Your task to perform on an android device: check battery use Image 0: 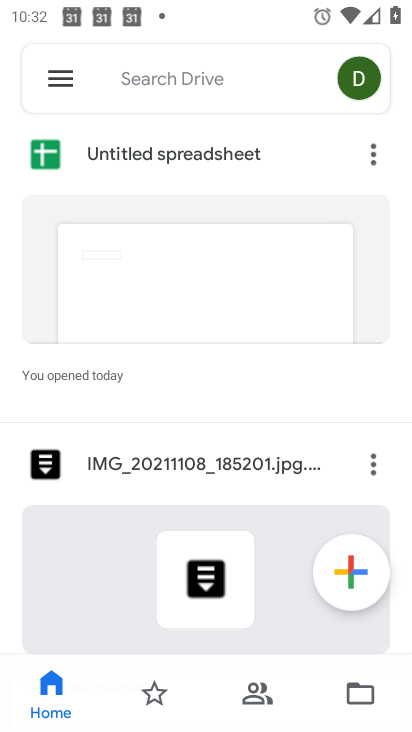
Step 0: press home button
Your task to perform on an android device: check battery use Image 1: 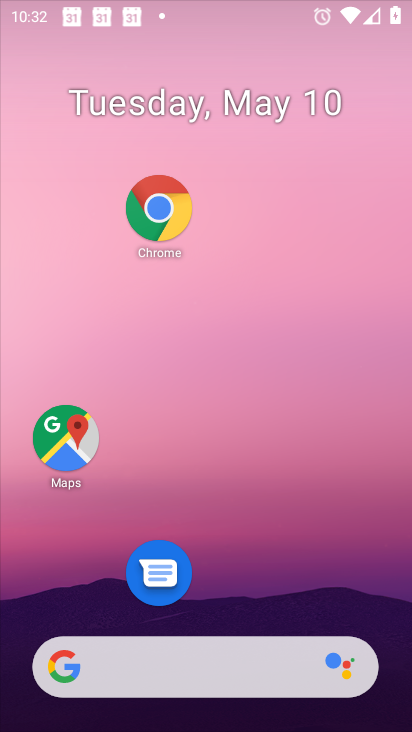
Step 1: drag from (265, 678) to (307, 178)
Your task to perform on an android device: check battery use Image 2: 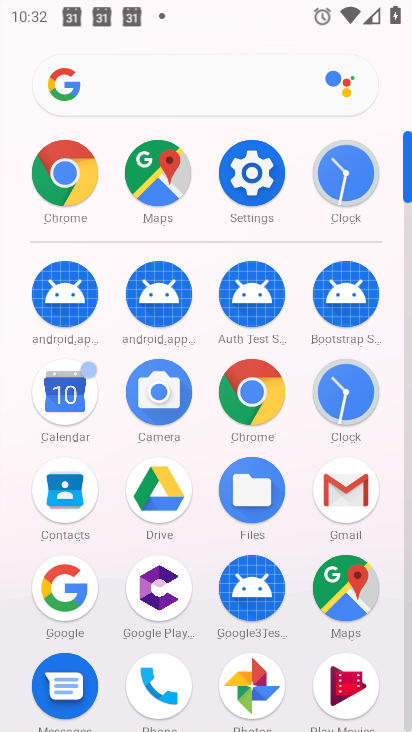
Step 2: click (241, 165)
Your task to perform on an android device: check battery use Image 3: 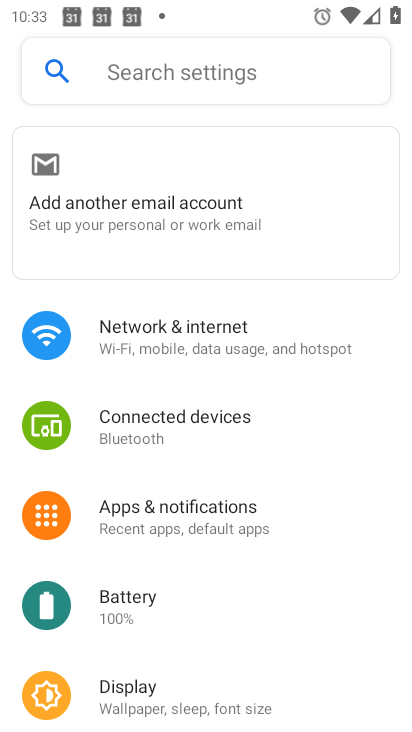
Step 3: click (152, 599)
Your task to perform on an android device: check battery use Image 4: 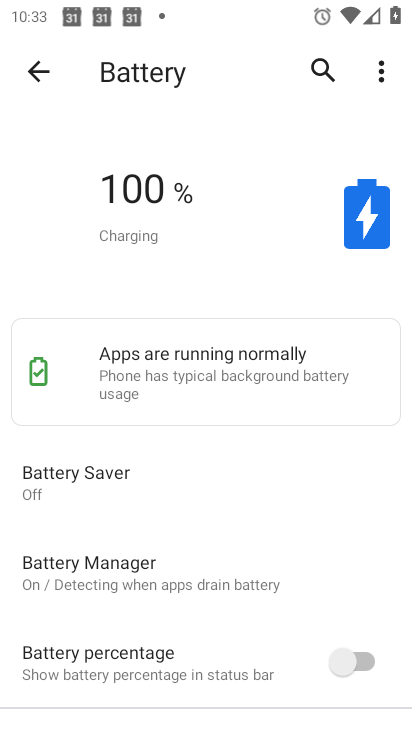
Step 4: task complete